Your task to perform on an android device: clear all cookies in the chrome app Image 0: 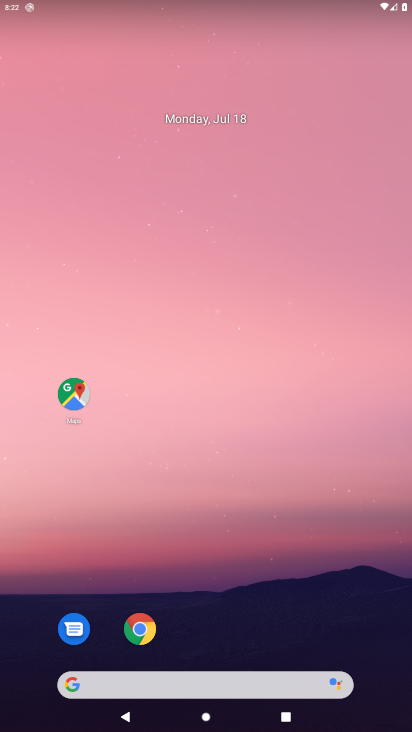
Step 0: drag from (55, 458) to (257, 71)
Your task to perform on an android device: clear all cookies in the chrome app Image 1: 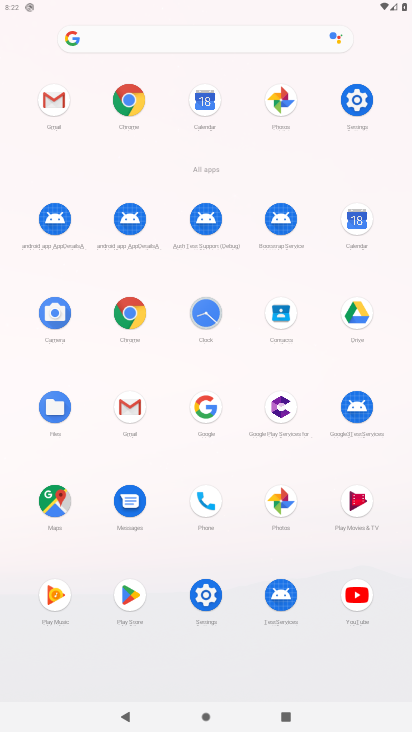
Step 1: click (138, 100)
Your task to perform on an android device: clear all cookies in the chrome app Image 2: 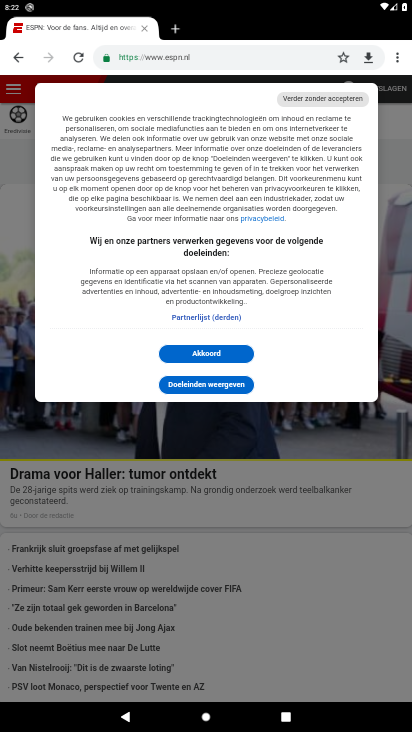
Step 2: click (402, 64)
Your task to perform on an android device: clear all cookies in the chrome app Image 3: 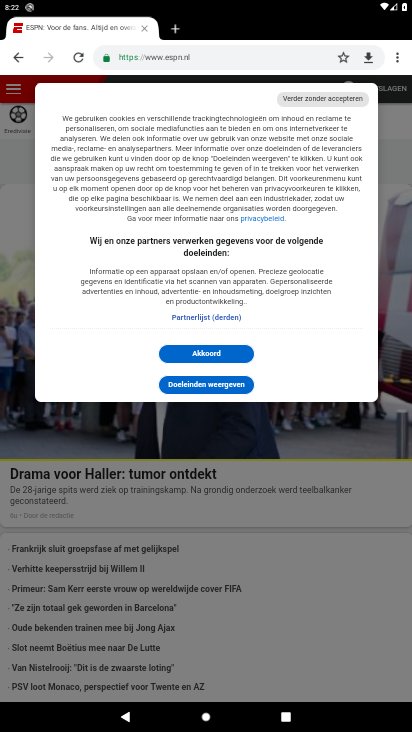
Step 3: click (392, 59)
Your task to perform on an android device: clear all cookies in the chrome app Image 4: 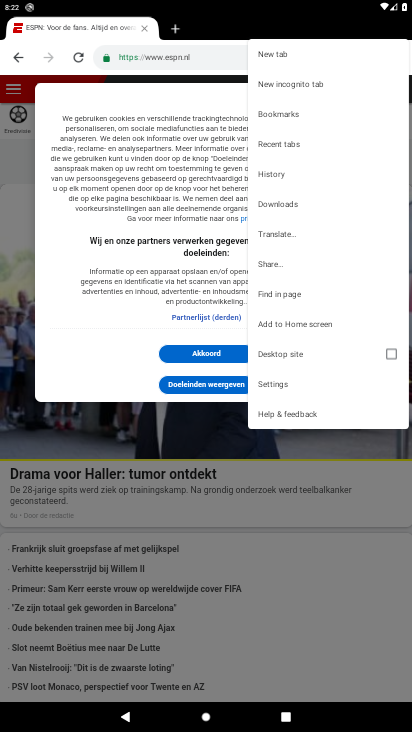
Step 4: click (267, 383)
Your task to perform on an android device: clear all cookies in the chrome app Image 5: 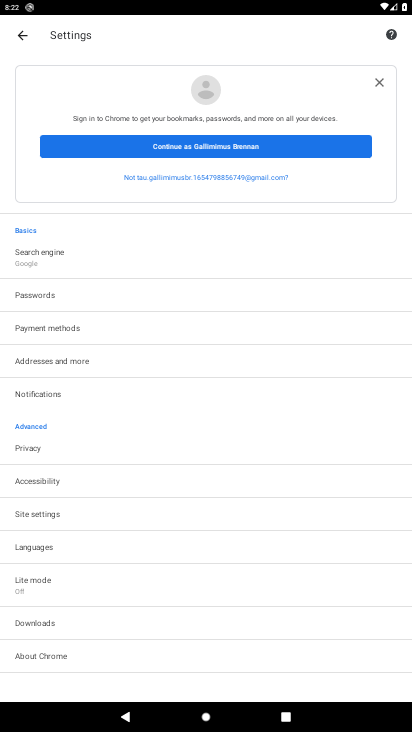
Step 5: click (41, 449)
Your task to perform on an android device: clear all cookies in the chrome app Image 6: 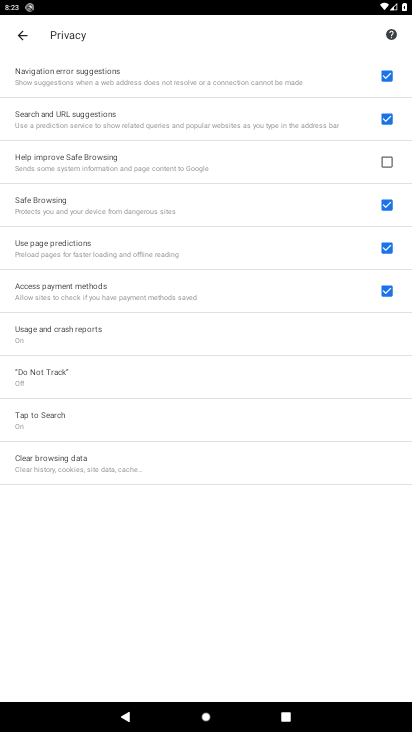
Step 6: click (94, 451)
Your task to perform on an android device: clear all cookies in the chrome app Image 7: 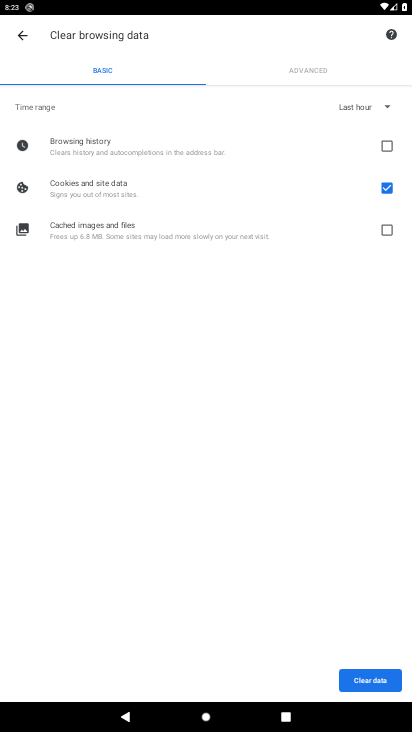
Step 7: click (368, 683)
Your task to perform on an android device: clear all cookies in the chrome app Image 8: 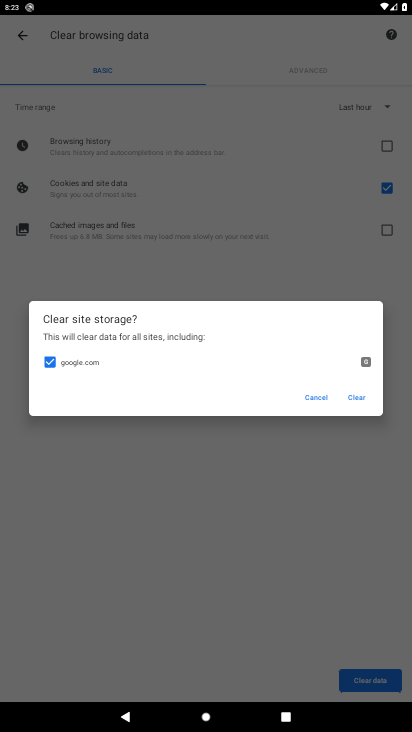
Step 8: click (349, 401)
Your task to perform on an android device: clear all cookies in the chrome app Image 9: 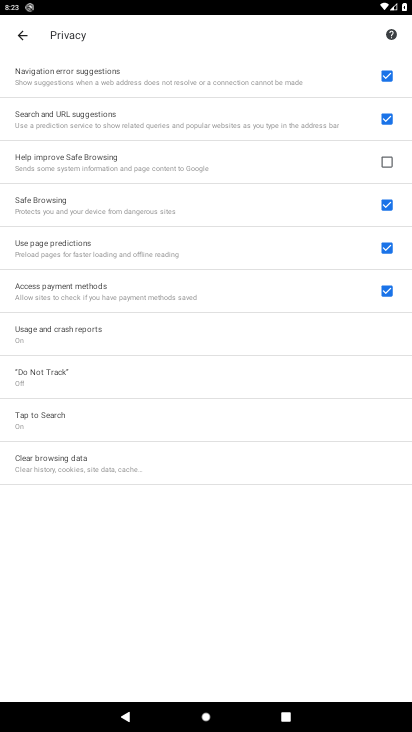
Step 9: task complete